Your task to perform on an android device: move a message to another label in the gmail app Image 0: 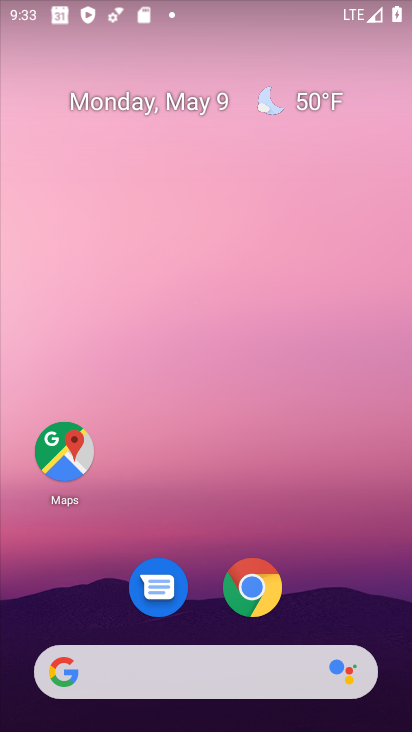
Step 0: drag from (201, 725) to (205, 129)
Your task to perform on an android device: move a message to another label in the gmail app Image 1: 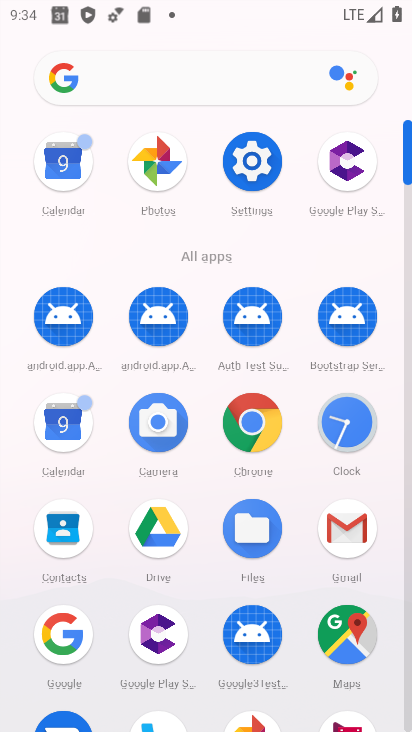
Step 1: click (342, 520)
Your task to perform on an android device: move a message to another label in the gmail app Image 2: 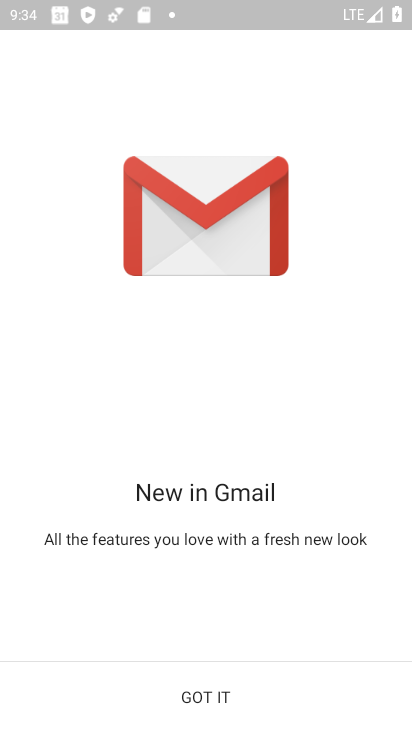
Step 2: click (219, 690)
Your task to perform on an android device: move a message to another label in the gmail app Image 3: 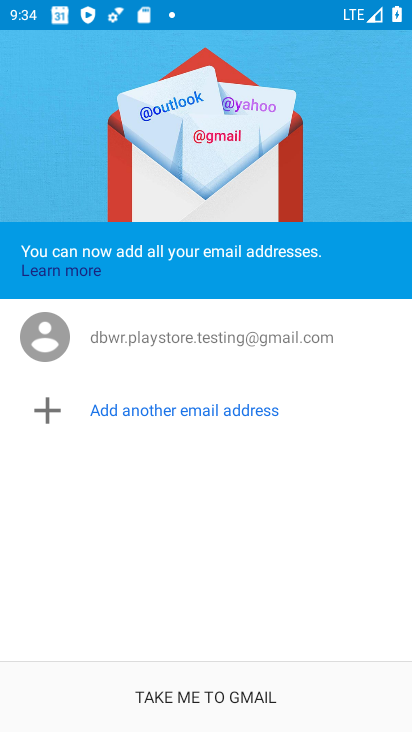
Step 3: click (219, 694)
Your task to perform on an android device: move a message to another label in the gmail app Image 4: 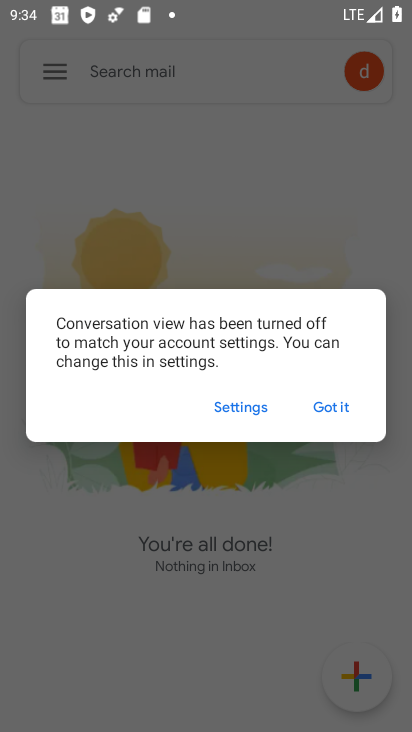
Step 4: click (333, 404)
Your task to perform on an android device: move a message to another label in the gmail app Image 5: 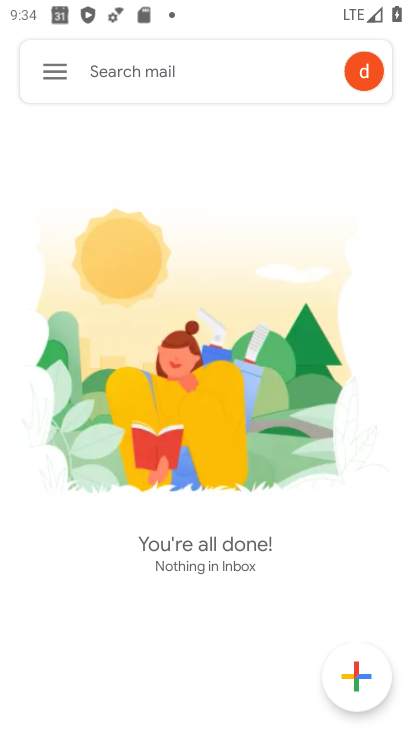
Step 5: task complete